Your task to perform on an android device: What's the weather today? Image 0: 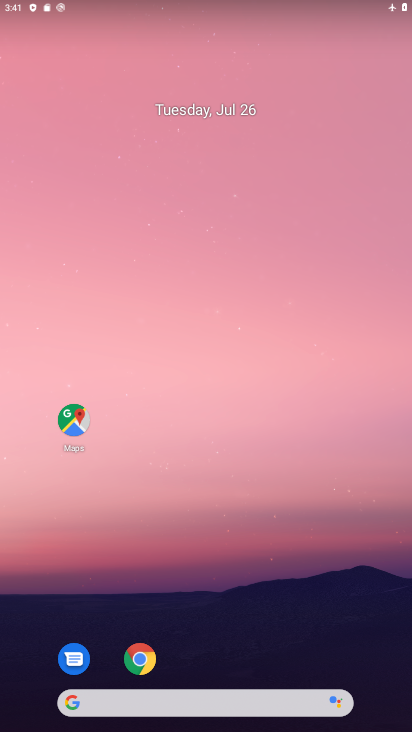
Step 0: drag from (240, 623) to (165, 13)
Your task to perform on an android device: What's the weather today? Image 1: 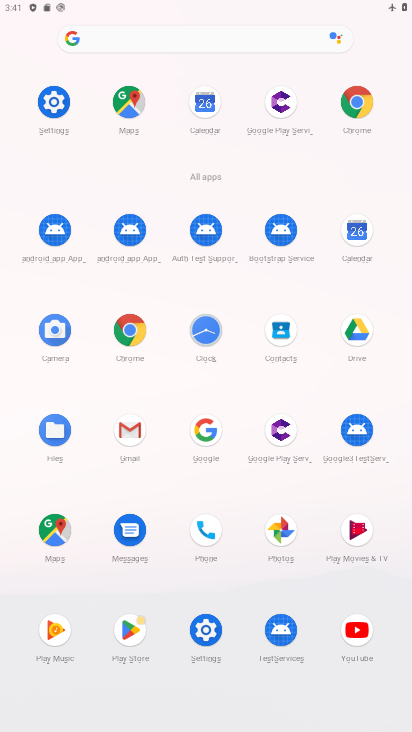
Step 1: click (203, 427)
Your task to perform on an android device: What's the weather today? Image 2: 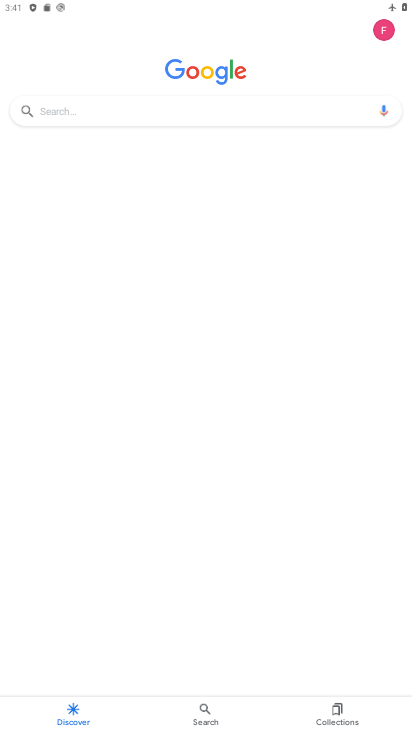
Step 2: click (90, 113)
Your task to perform on an android device: What's the weather today? Image 3: 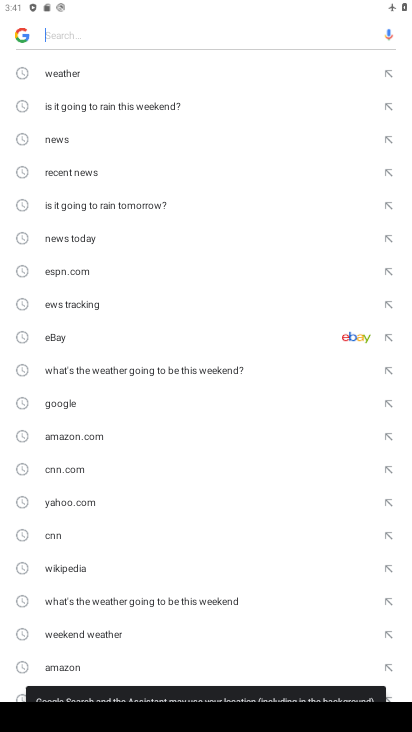
Step 3: click (34, 78)
Your task to perform on an android device: What's the weather today? Image 4: 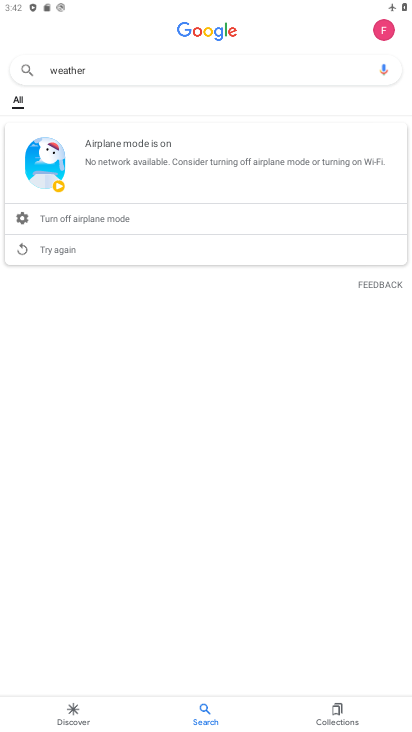
Step 4: task complete